Your task to perform on an android device: Go to sound settings Image 0: 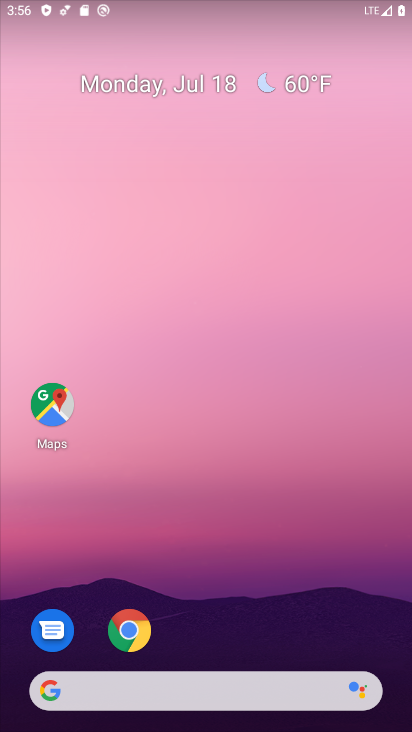
Step 0: drag from (270, 635) to (248, 157)
Your task to perform on an android device: Go to sound settings Image 1: 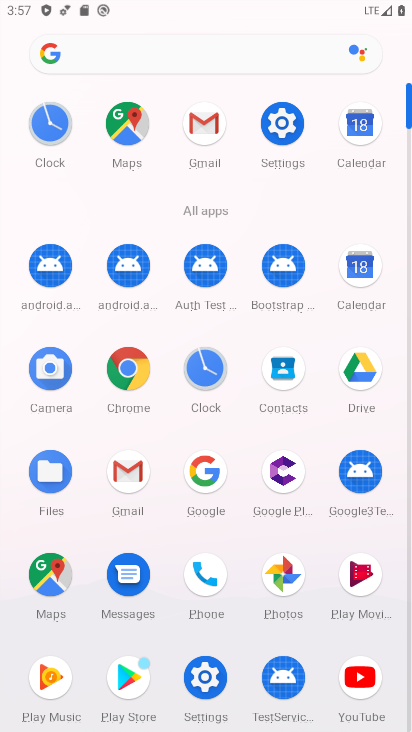
Step 1: click (205, 684)
Your task to perform on an android device: Go to sound settings Image 2: 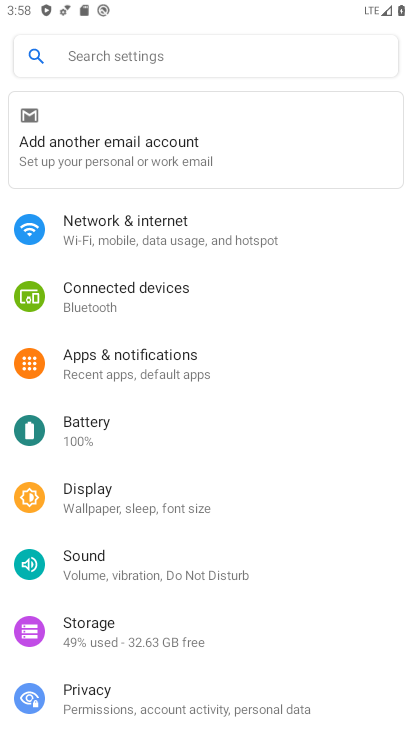
Step 2: click (102, 569)
Your task to perform on an android device: Go to sound settings Image 3: 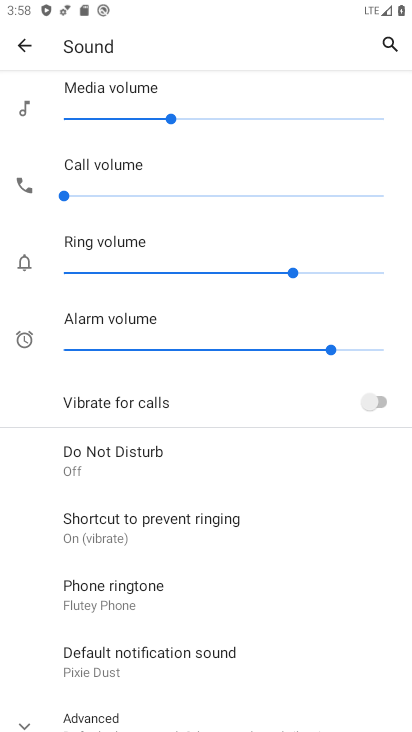
Step 3: task complete